Your task to perform on an android device: see sites visited before in the chrome app Image 0: 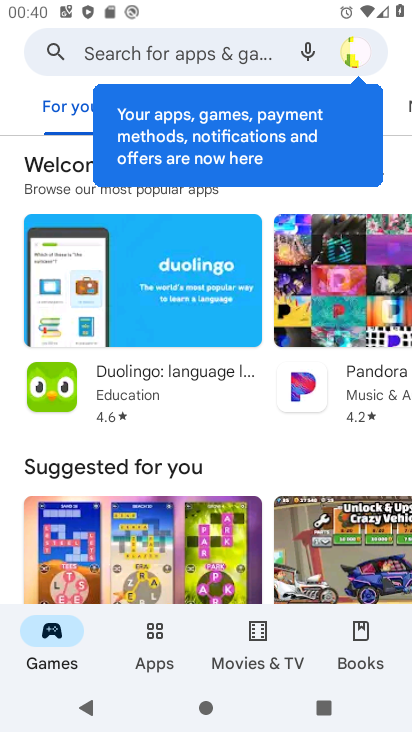
Step 0: press home button
Your task to perform on an android device: see sites visited before in the chrome app Image 1: 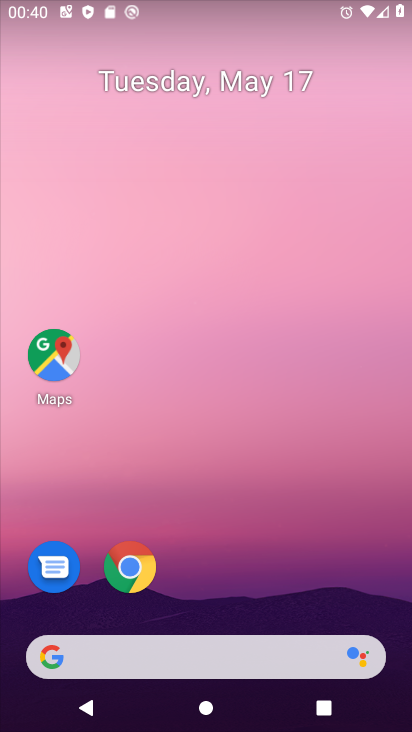
Step 1: click (122, 580)
Your task to perform on an android device: see sites visited before in the chrome app Image 2: 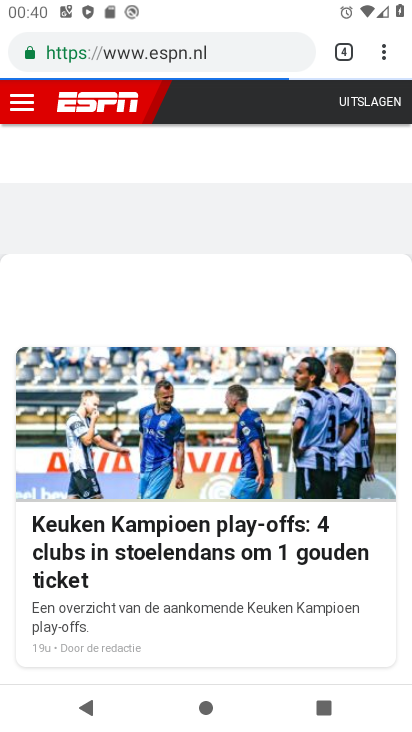
Step 2: click (384, 56)
Your task to perform on an android device: see sites visited before in the chrome app Image 3: 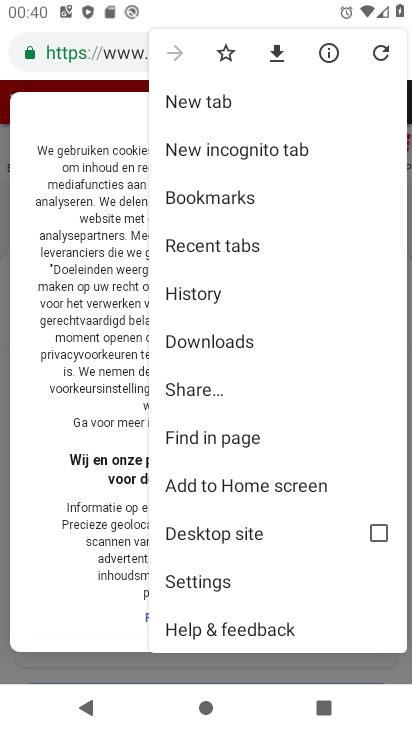
Step 3: click (196, 287)
Your task to perform on an android device: see sites visited before in the chrome app Image 4: 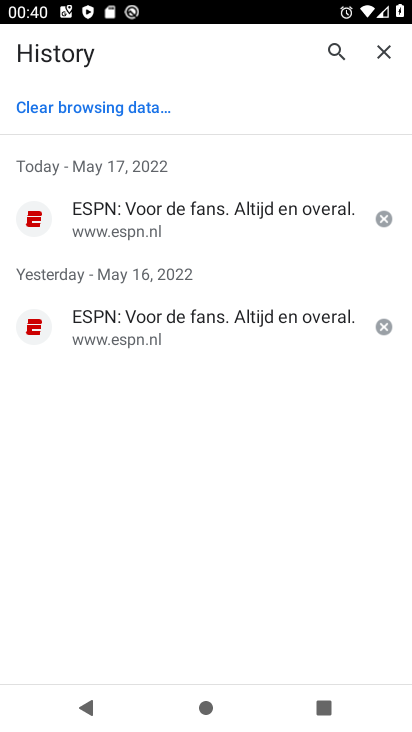
Step 4: task complete